Your task to perform on an android device: install app "Adobe Acrobat Reader" Image 0: 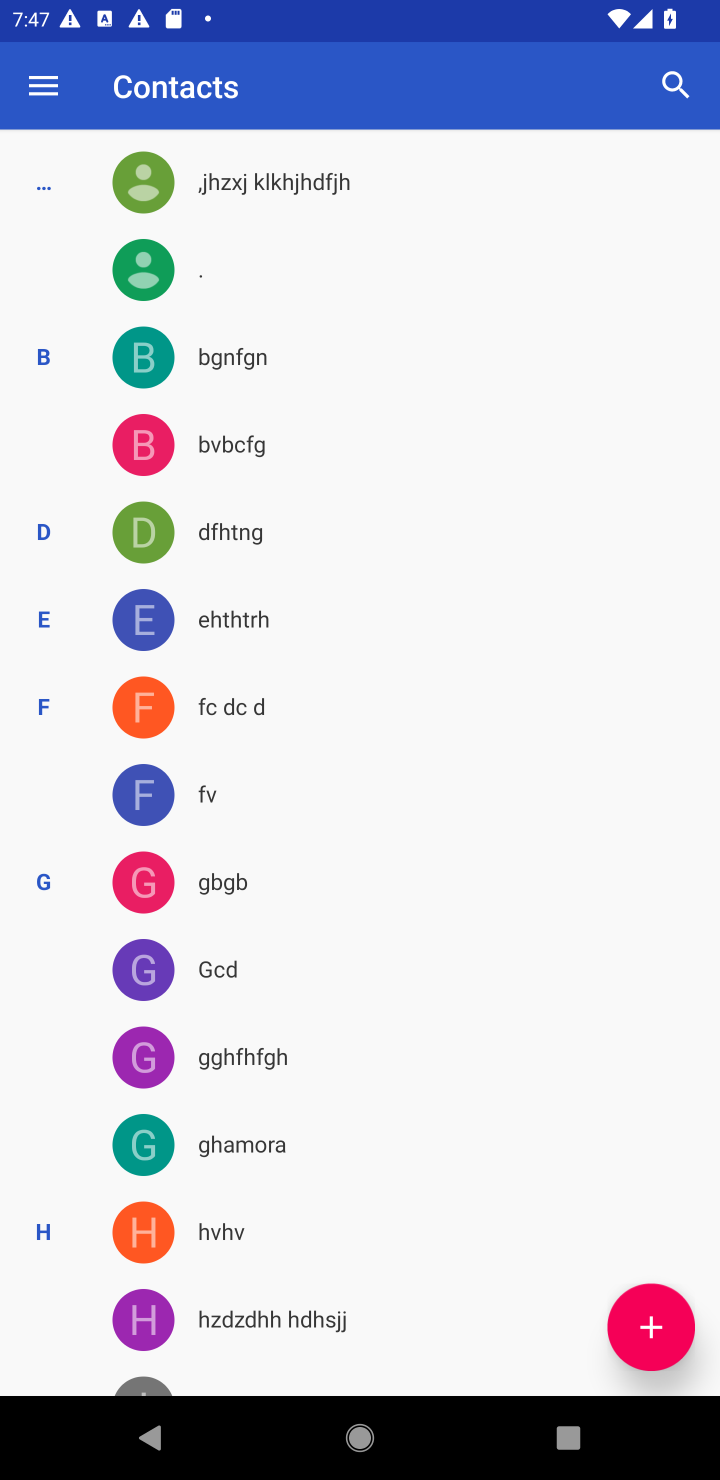
Step 0: press home button
Your task to perform on an android device: install app "Adobe Acrobat Reader" Image 1: 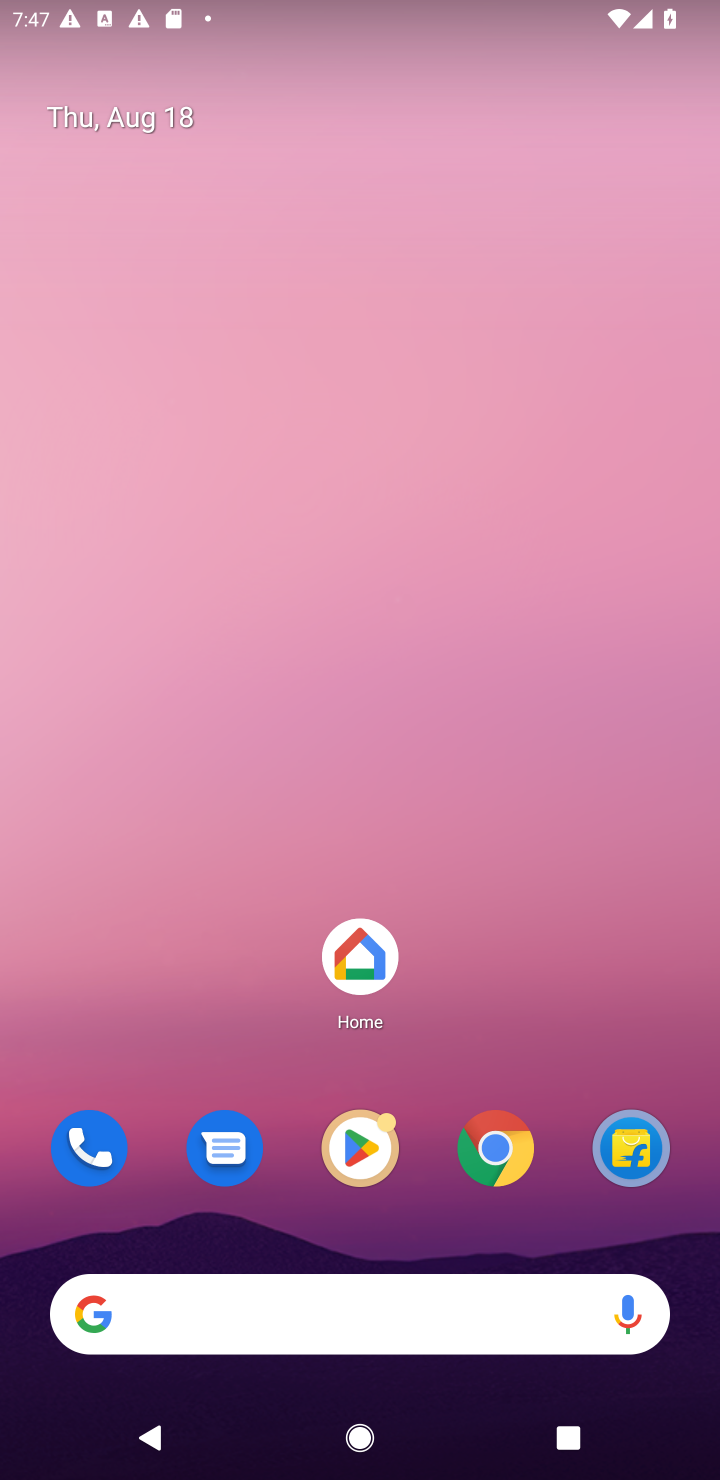
Step 1: drag from (368, 992) to (490, 103)
Your task to perform on an android device: install app "Adobe Acrobat Reader" Image 2: 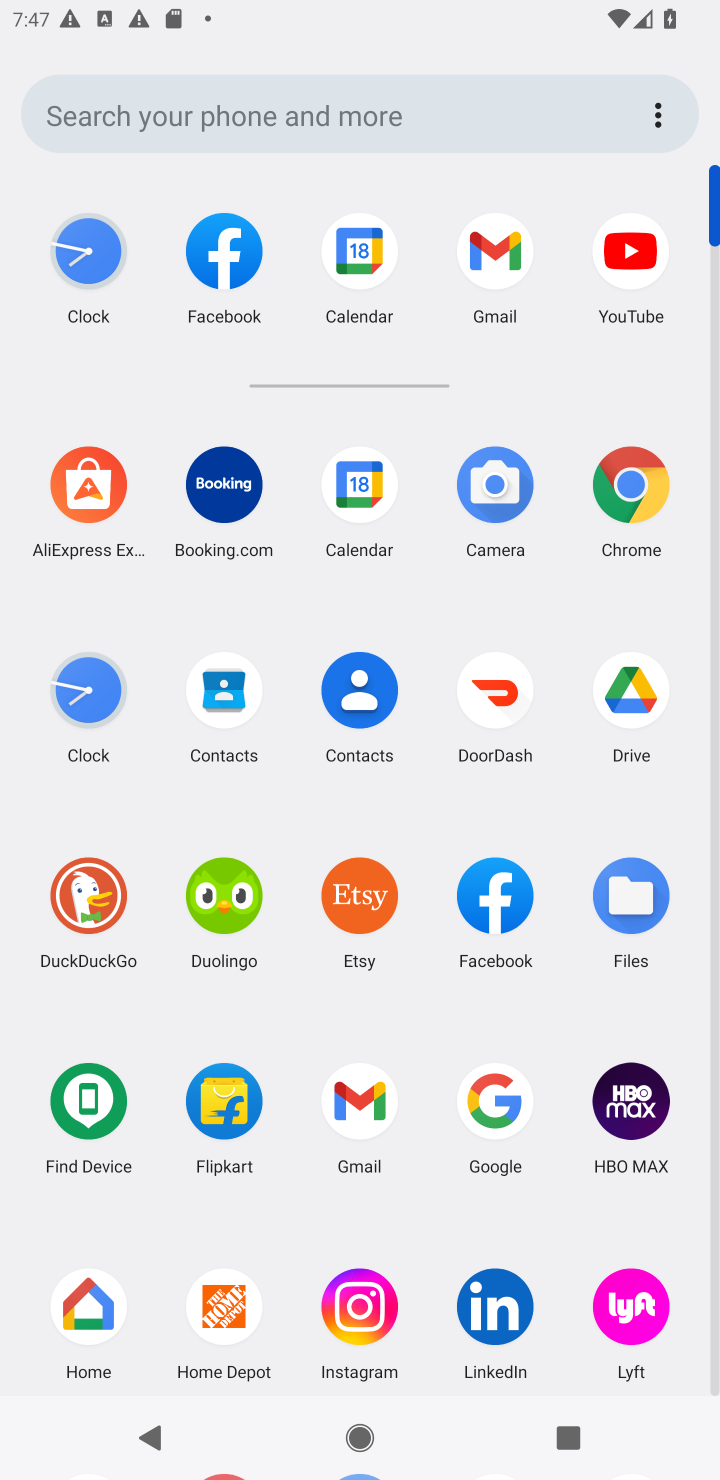
Step 2: drag from (443, 954) to (456, 154)
Your task to perform on an android device: install app "Adobe Acrobat Reader" Image 3: 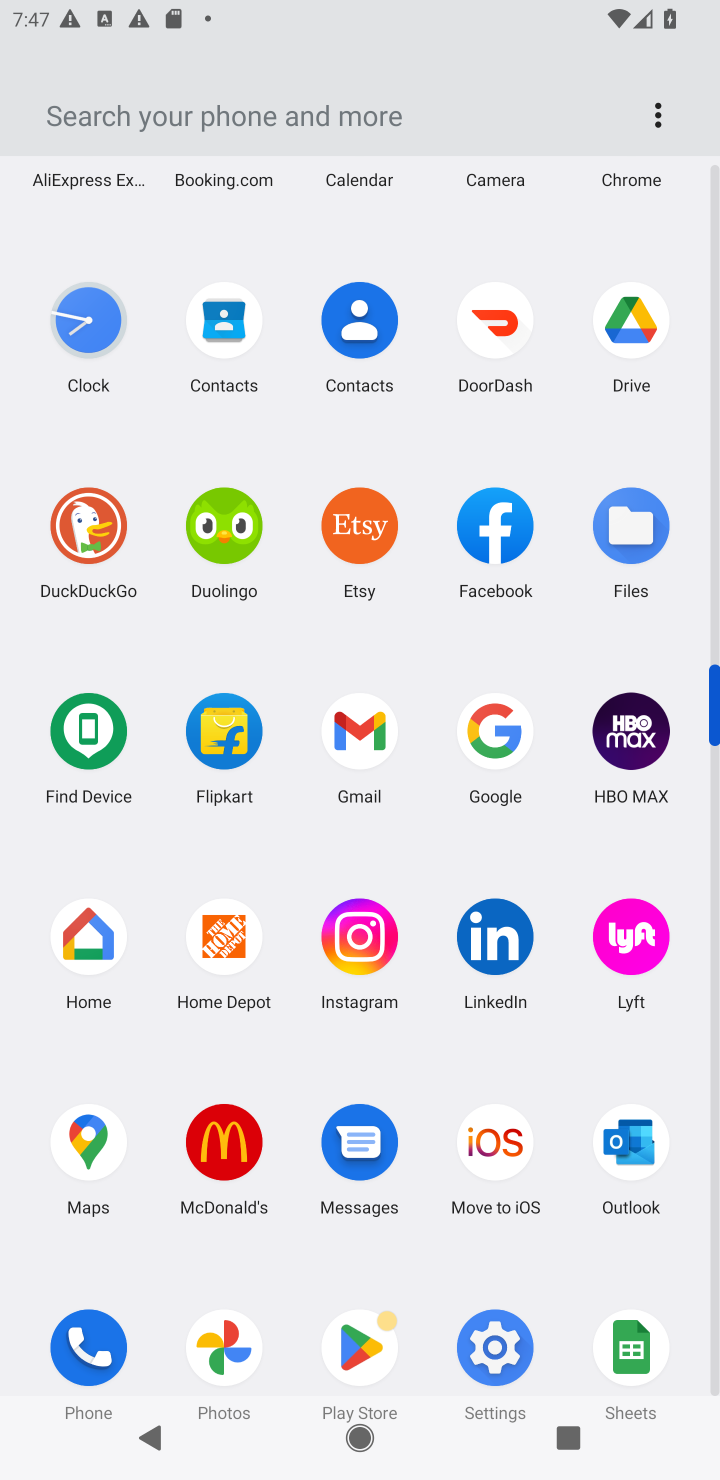
Step 3: drag from (406, 1095) to (527, 334)
Your task to perform on an android device: install app "Adobe Acrobat Reader" Image 4: 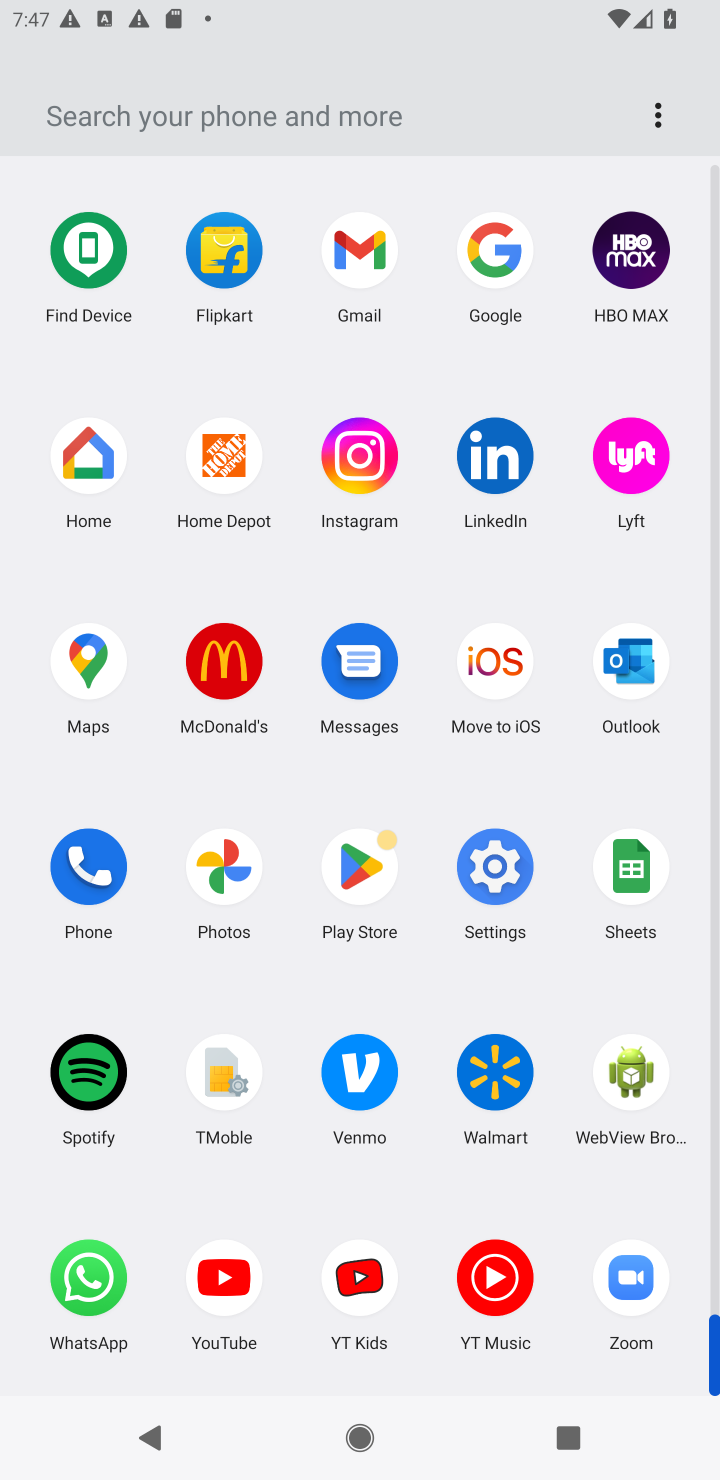
Step 4: click (368, 876)
Your task to perform on an android device: install app "Adobe Acrobat Reader" Image 5: 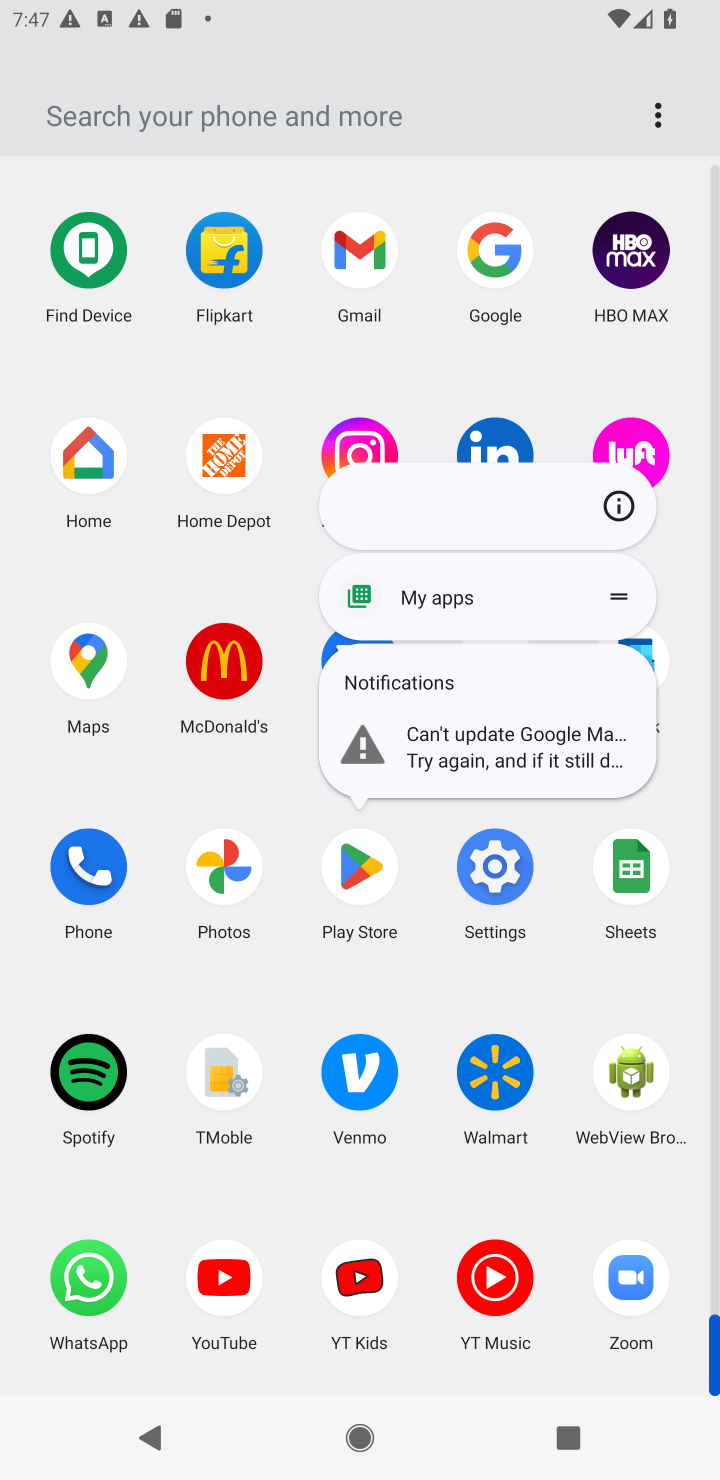
Step 5: click (368, 874)
Your task to perform on an android device: install app "Adobe Acrobat Reader" Image 6: 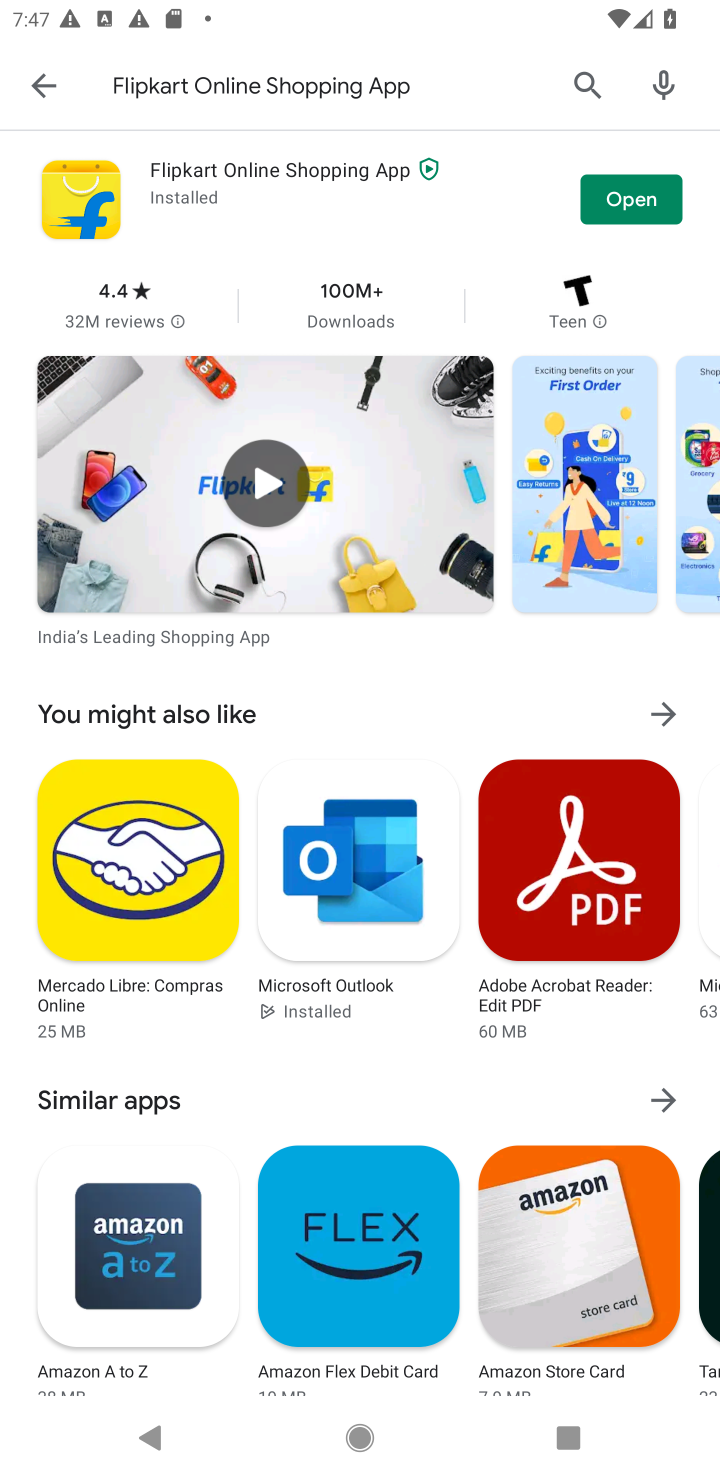
Step 6: press back button
Your task to perform on an android device: install app "Adobe Acrobat Reader" Image 7: 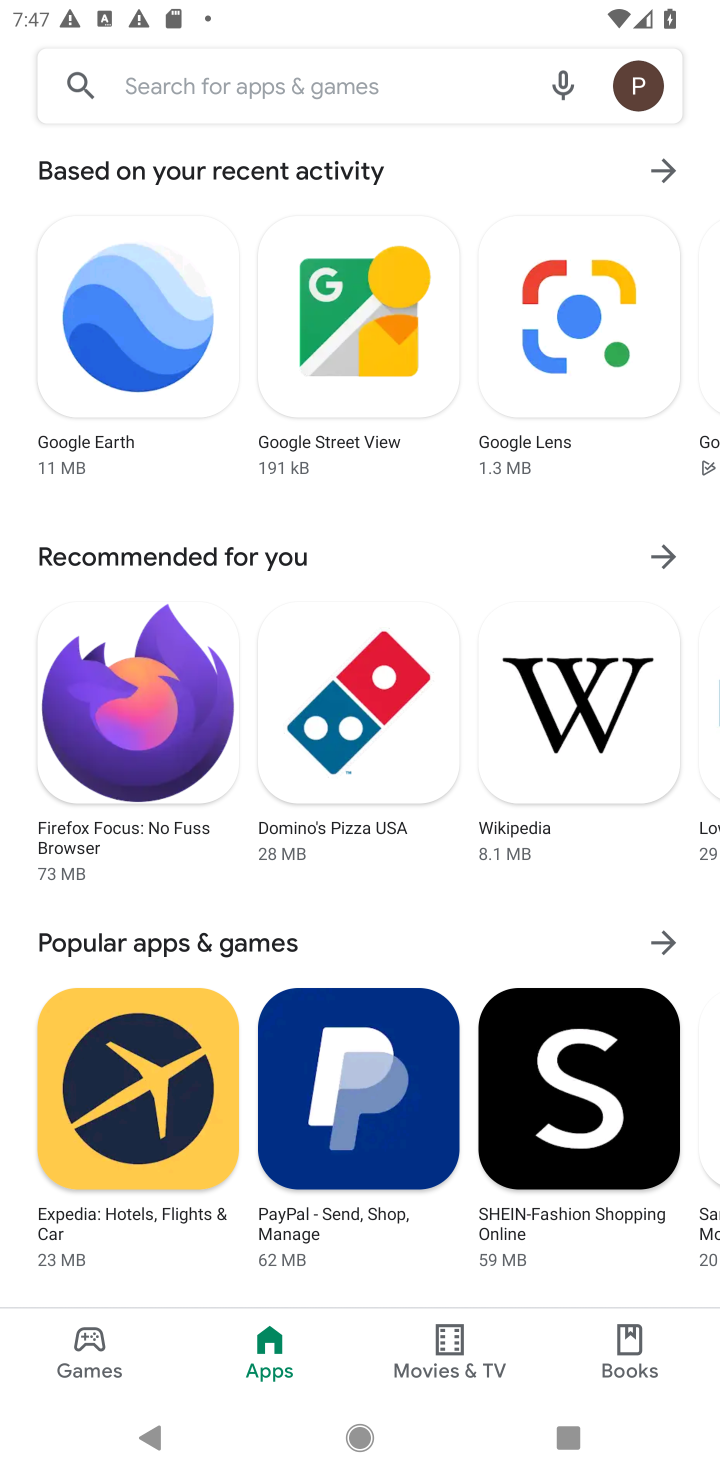
Step 7: click (351, 97)
Your task to perform on an android device: install app "Adobe Acrobat Reader" Image 8: 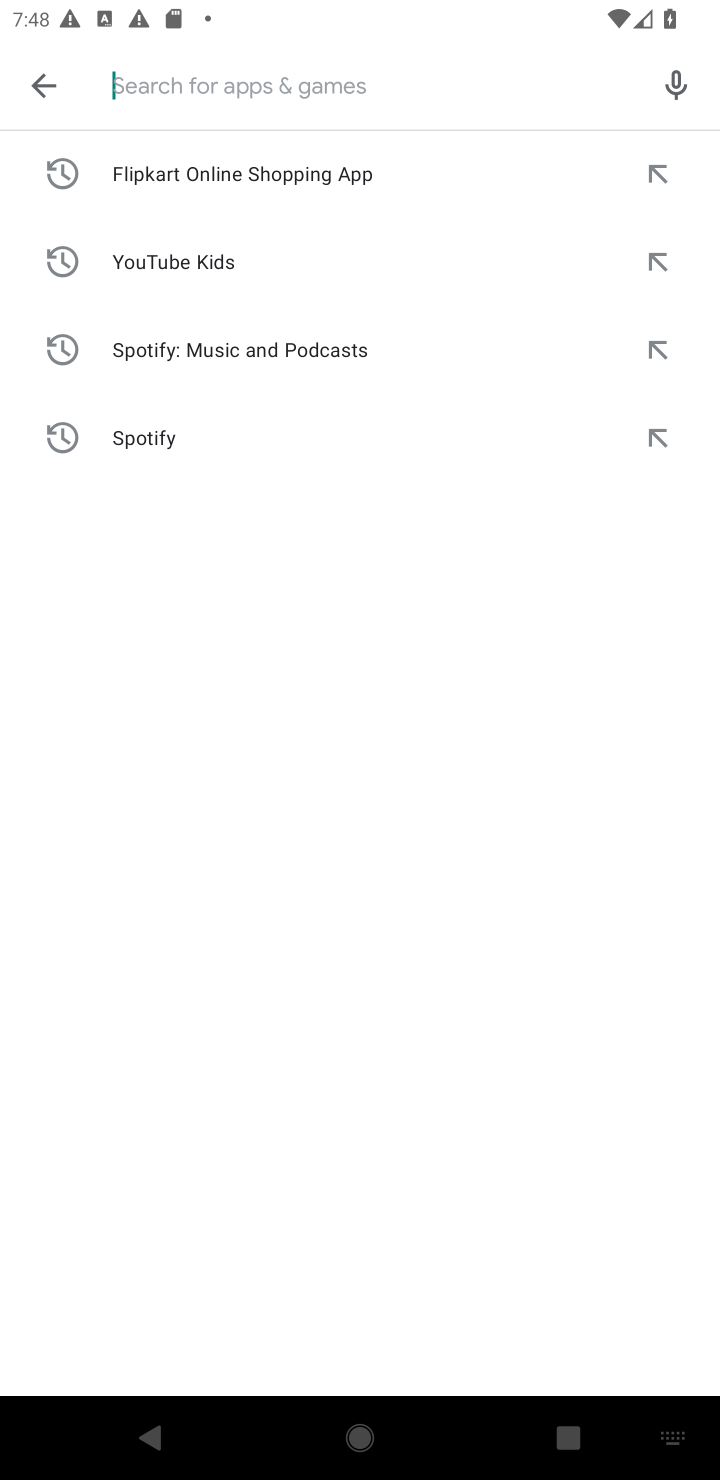
Step 8: type "Adobe Acrobat Reader"
Your task to perform on an android device: install app "Adobe Acrobat Reader" Image 9: 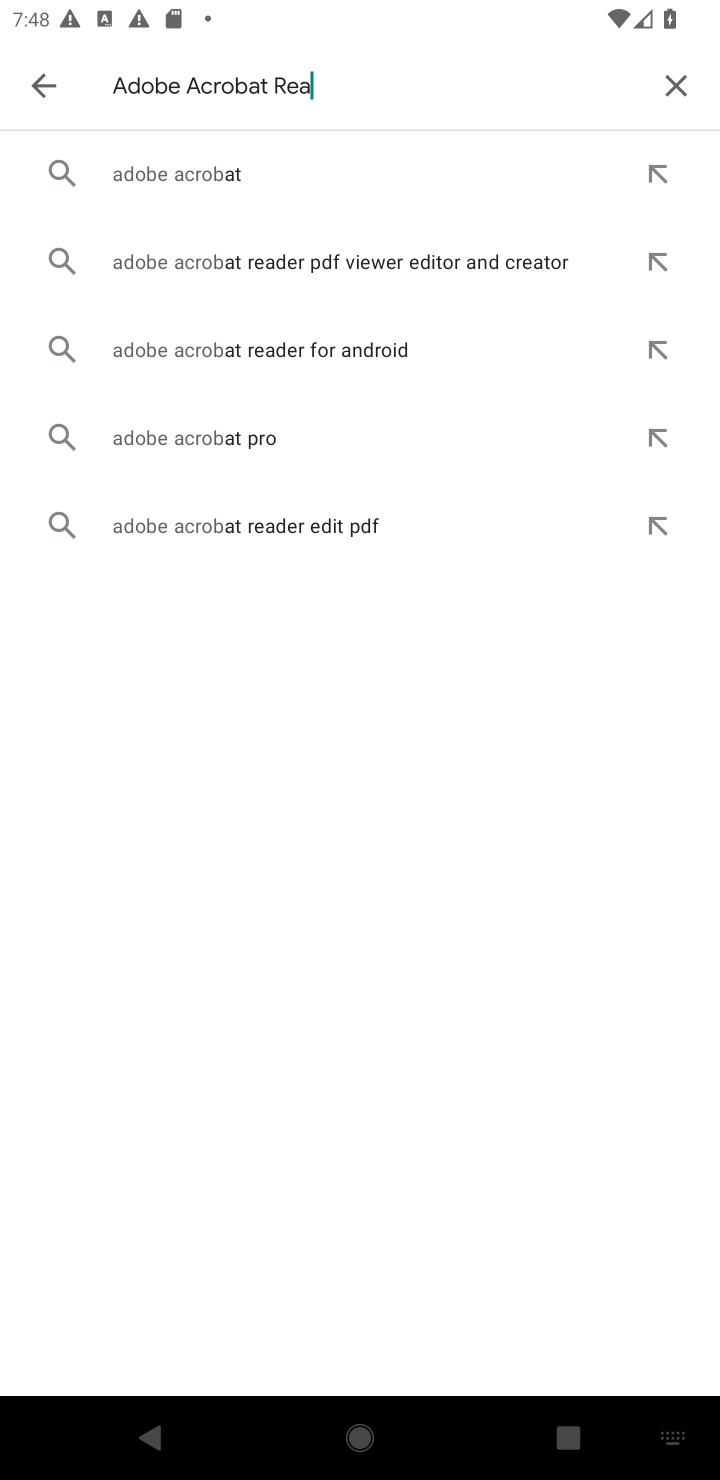
Step 9: press enter
Your task to perform on an android device: install app "Adobe Acrobat Reader" Image 10: 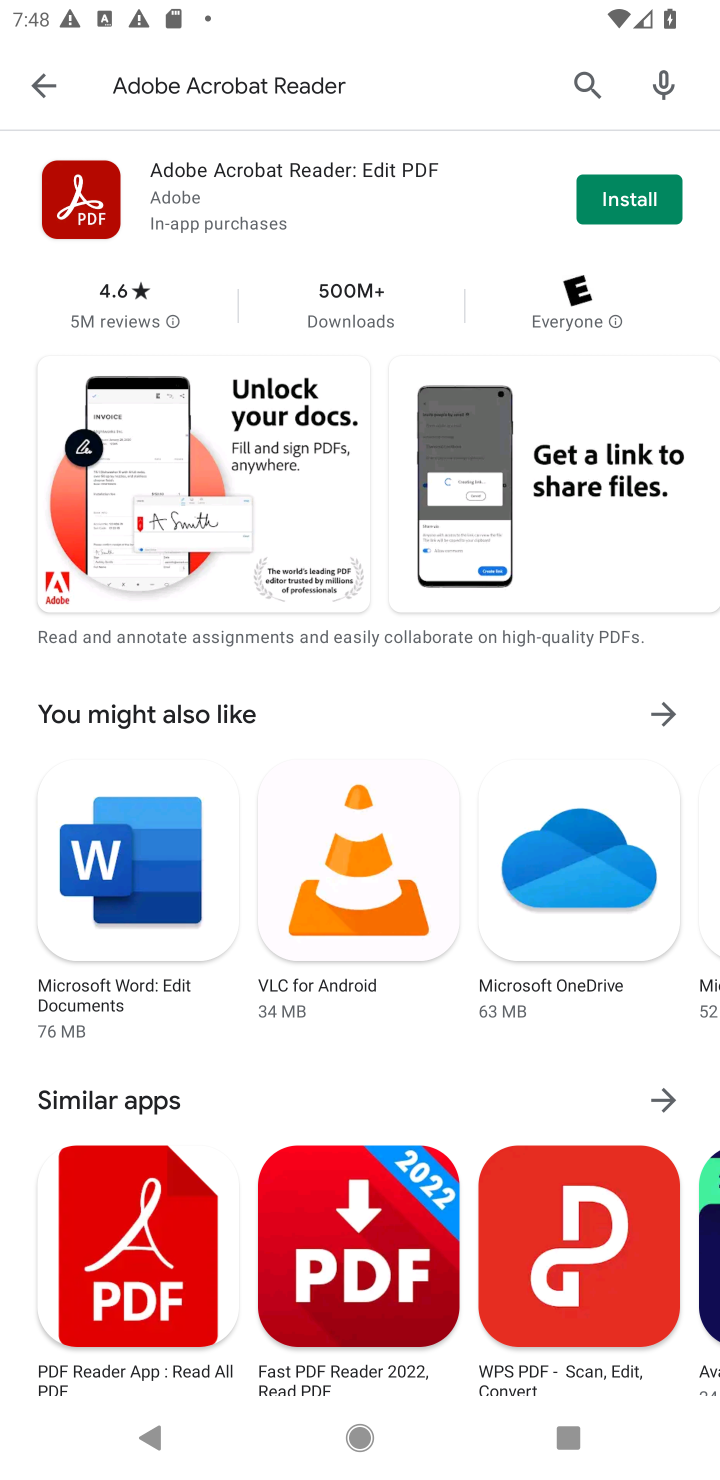
Step 10: click (640, 203)
Your task to perform on an android device: install app "Adobe Acrobat Reader" Image 11: 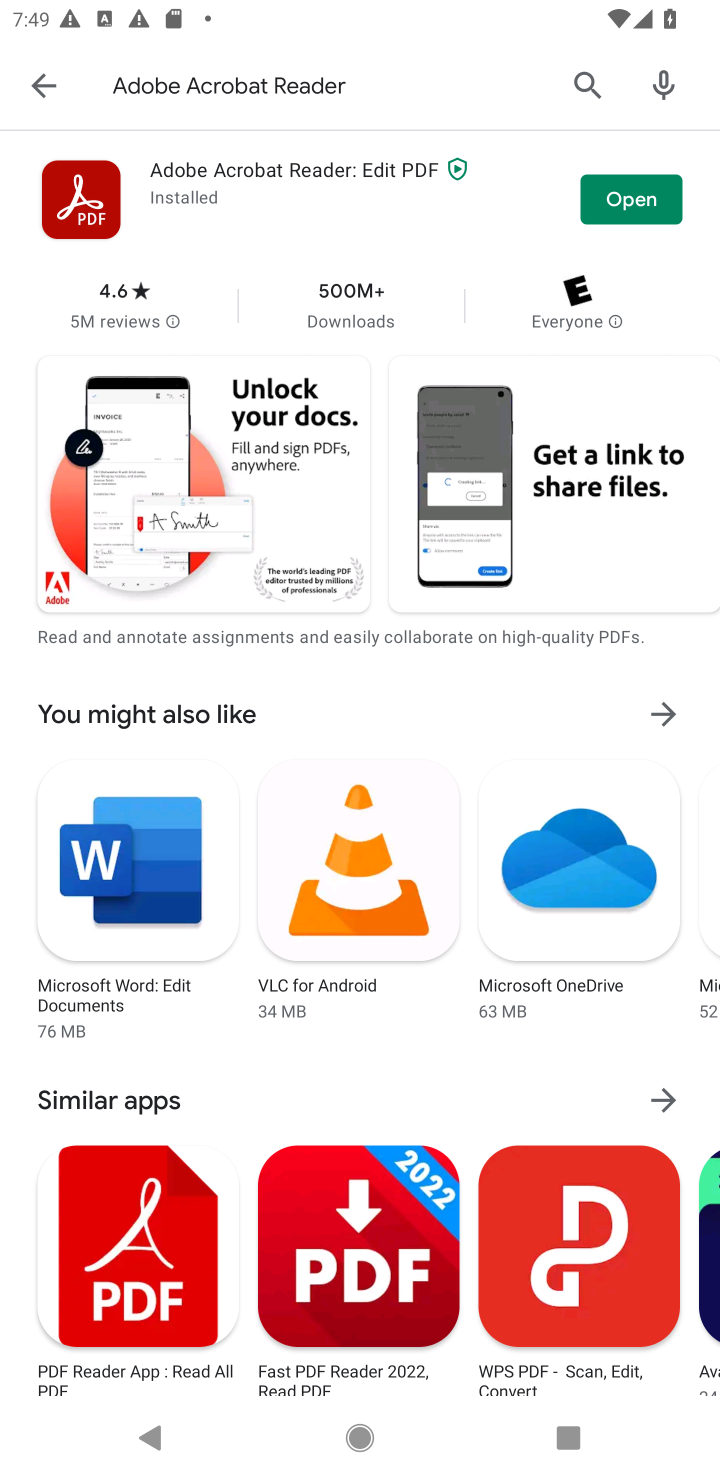
Step 11: click (623, 184)
Your task to perform on an android device: install app "Adobe Acrobat Reader" Image 12: 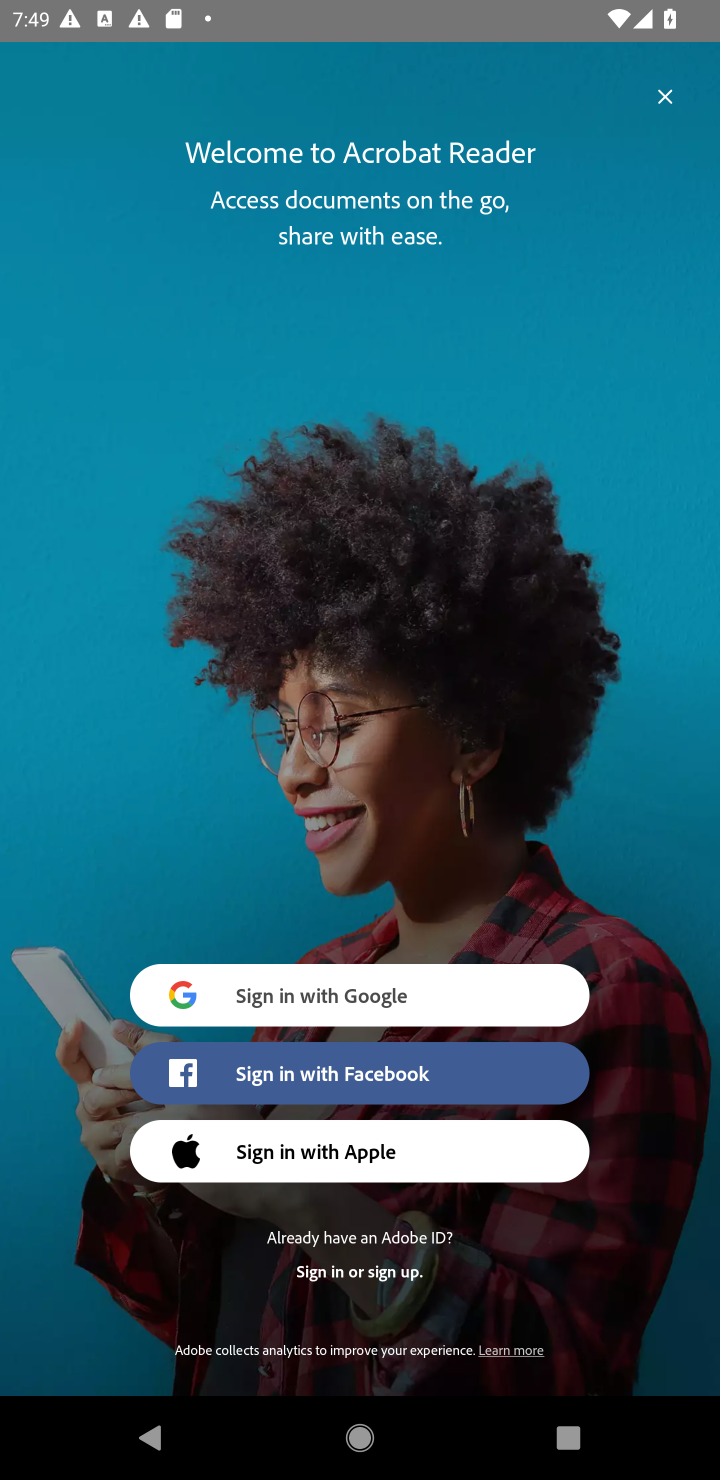
Step 12: task complete